Your task to perform on an android device: open wifi settings Image 0: 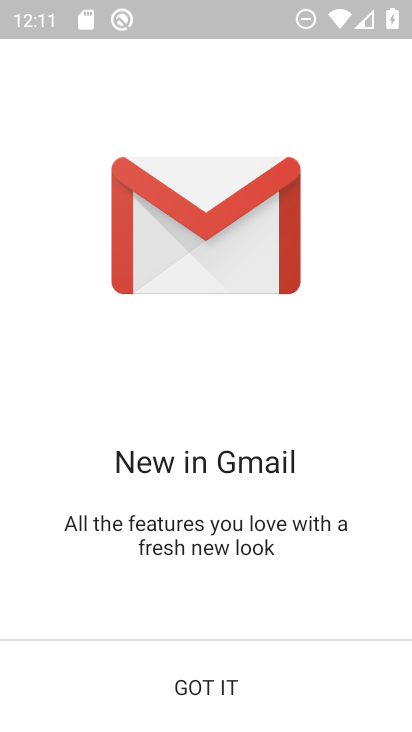
Step 0: press home button
Your task to perform on an android device: open wifi settings Image 1: 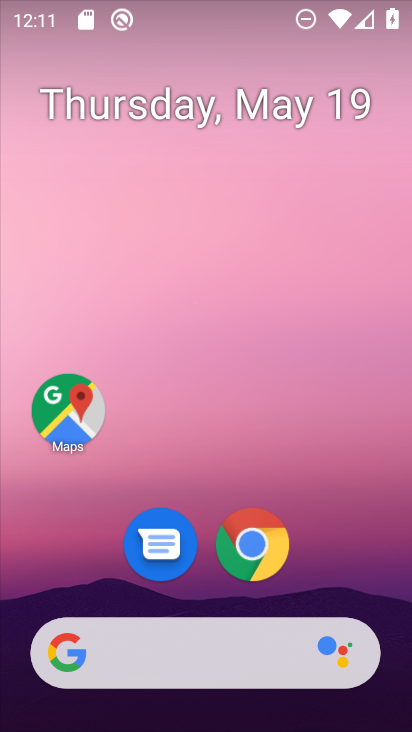
Step 1: drag from (388, 591) to (205, 115)
Your task to perform on an android device: open wifi settings Image 2: 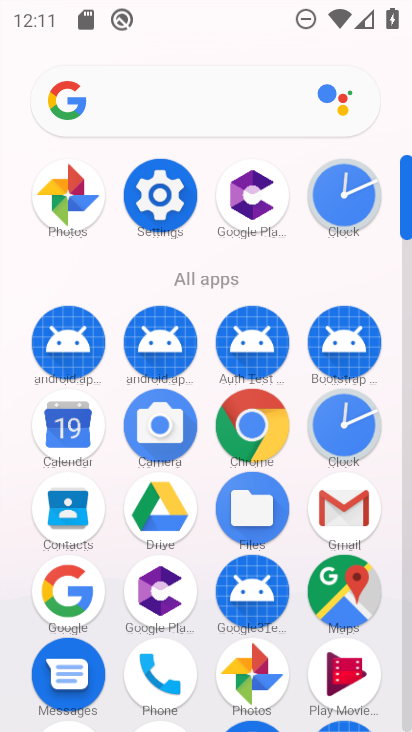
Step 2: click (179, 196)
Your task to perform on an android device: open wifi settings Image 3: 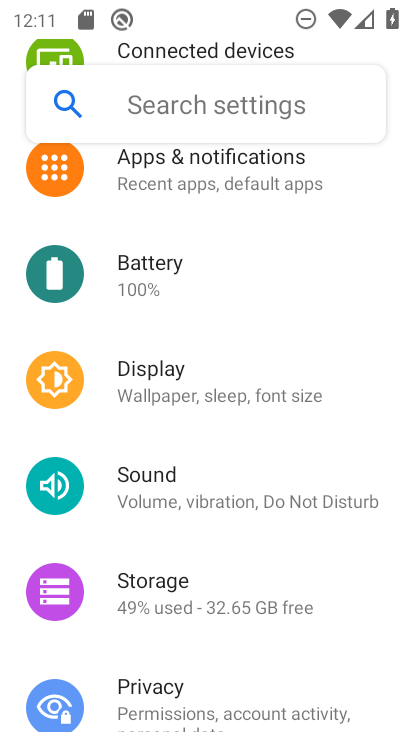
Step 3: drag from (205, 256) to (177, 537)
Your task to perform on an android device: open wifi settings Image 4: 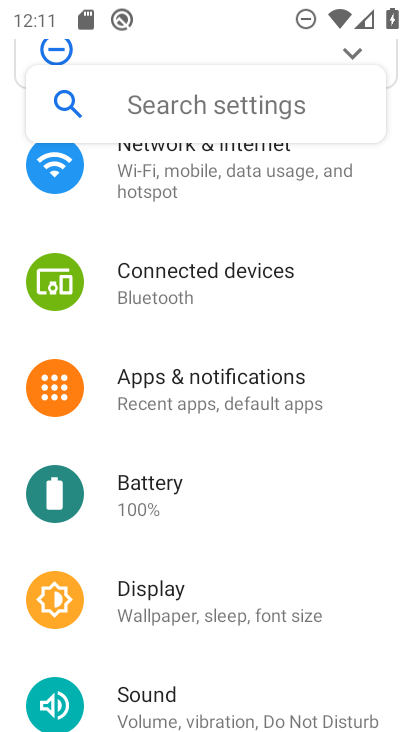
Step 4: drag from (174, 216) to (125, 721)
Your task to perform on an android device: open wifi settings Image 5: 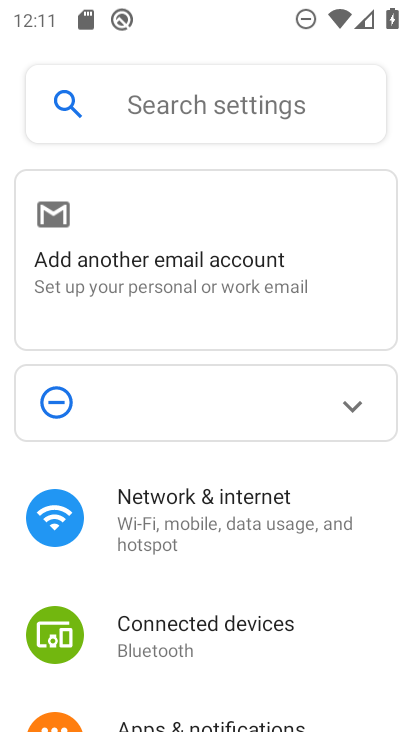
Step 5: click (152, 552)
Your task to perform on an android device: open wifi settings Image 6: 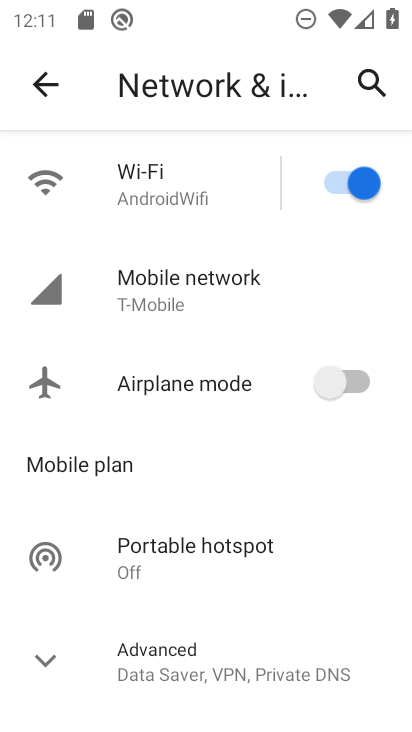
Step 6: click (196, 205)
Your task to perform on an android device: open wifi settings Image 7: 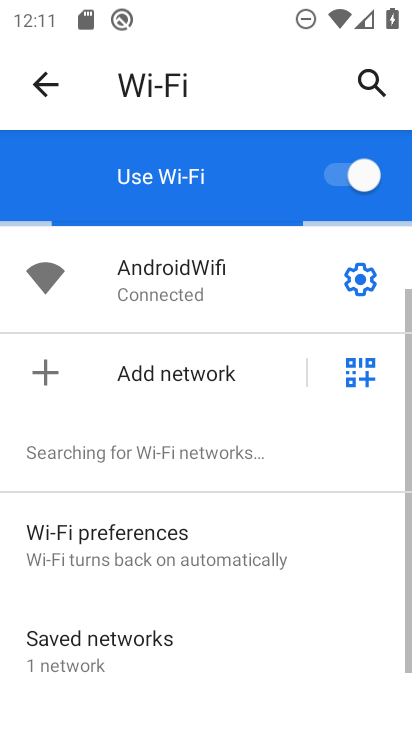
Step 7: task complete